Your task to perform on an android device: set the stopwatch Image 0: 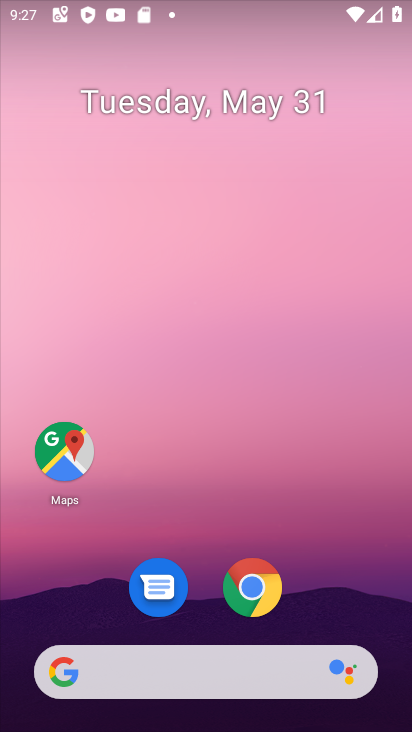
Step 0: drag from (324, 587) to (313, 55)
Your task to perform on an android device: set the stopwatch Image 1: 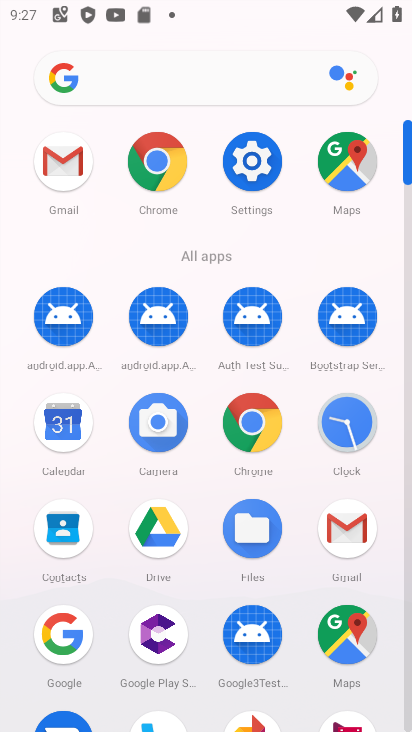
Step 1: click (331, 413)
Your task to perform on an android device: set the stopwatch Image 2: 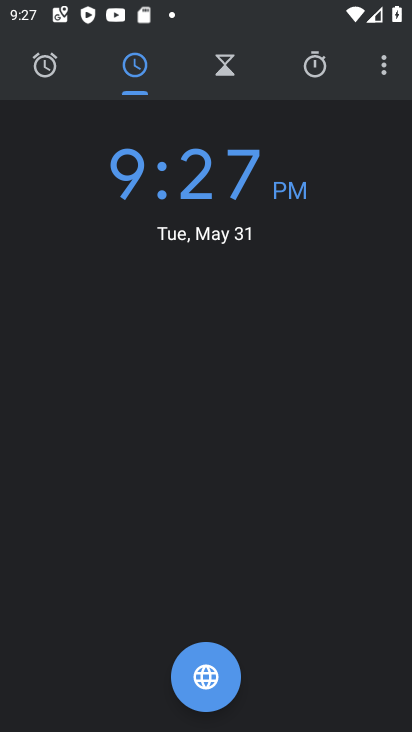
Step 2: click (318, 69)
Your task to perform on an android device: set the stopwatch Image 3: 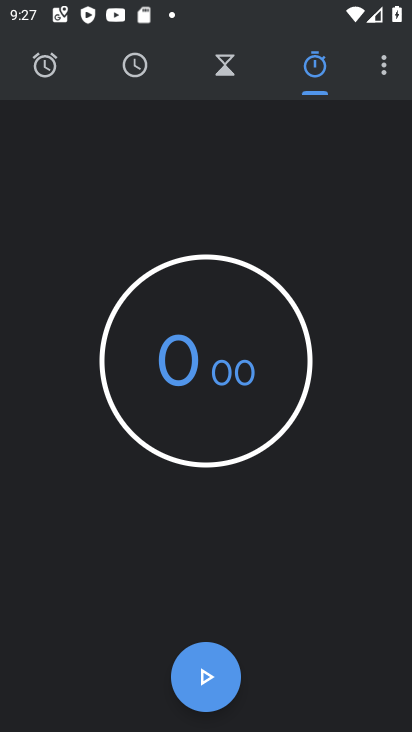
Step 3: click (198, 681)
Your task to perform on an android device: set the stopwatch Image 4: 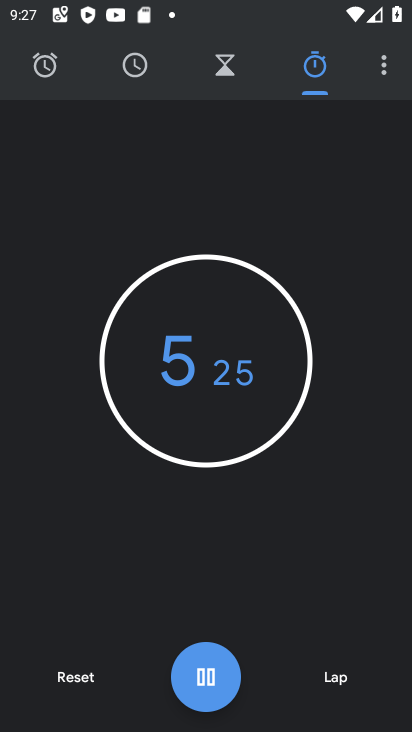
Step 4: task complete